Your task to perform on an android device: turn on airplane mode Image 0: 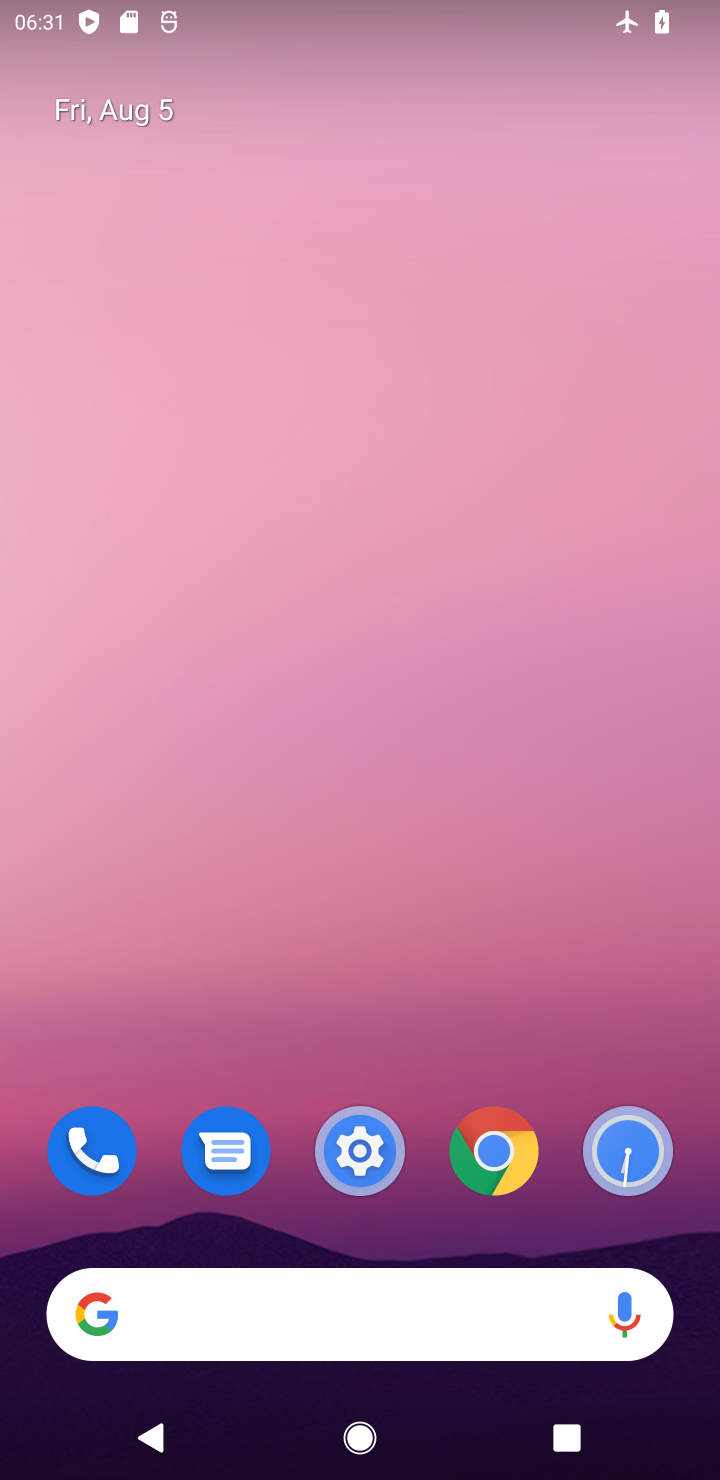
Step 0: drag from (448, 1219) to (459, 119)
Your task to perform on an android device: turn on airplane mode Image 1: 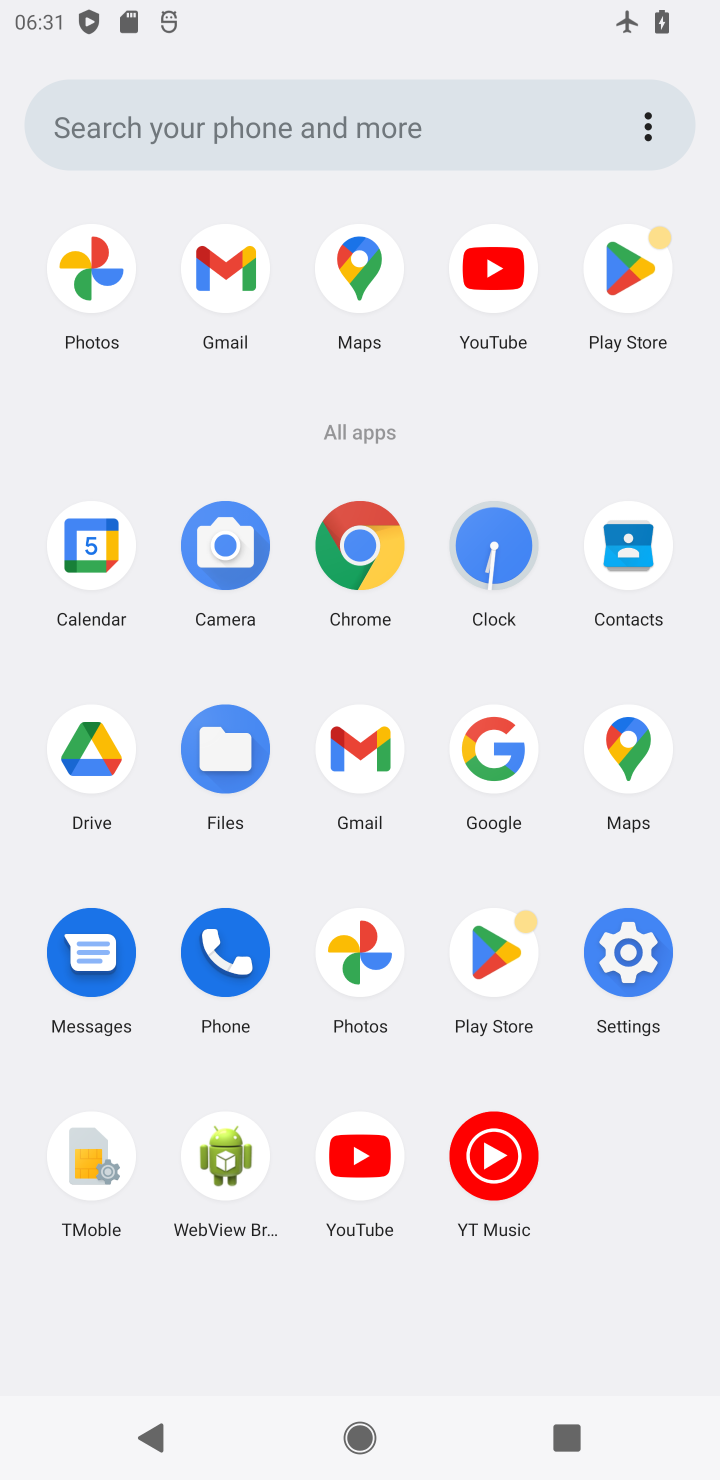
Step 1: click (629, 987)
Your task to perform on an android device: turn on airplane mode Image 2: 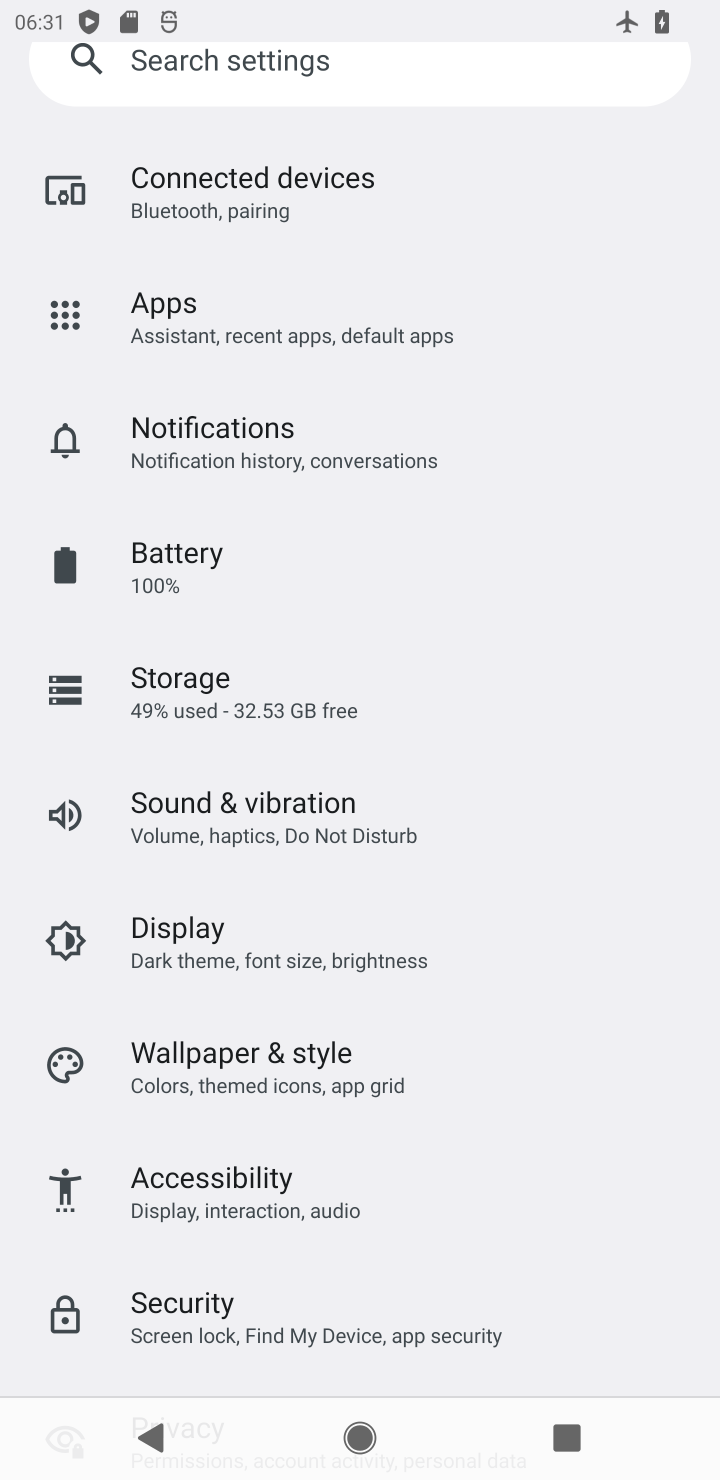
Step 2: drag from (281, 388) to (345, 977)
Your task to perform on an android device: turn on airplane mode Image 3: 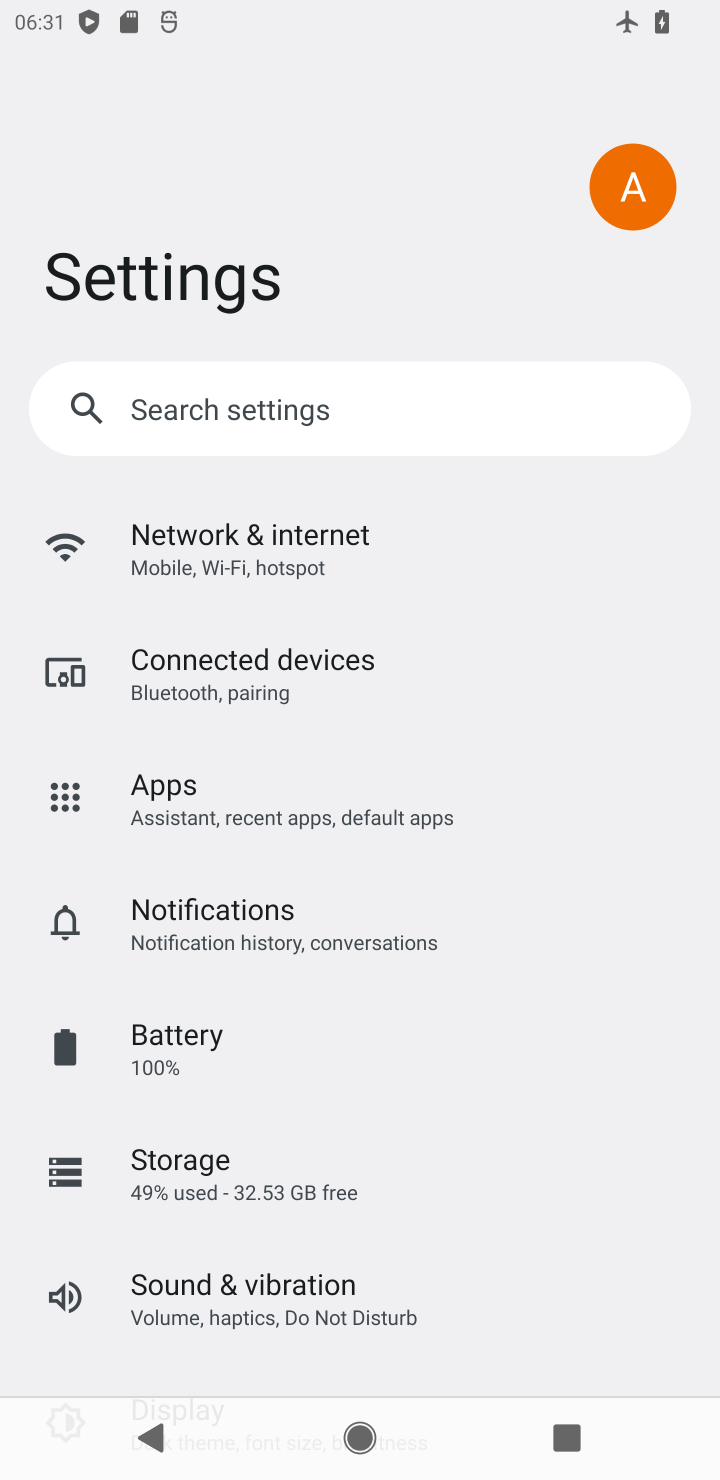
Step 3: click (397, 520)
Your task to perform on an android device: turn on airplane mode Image 4: 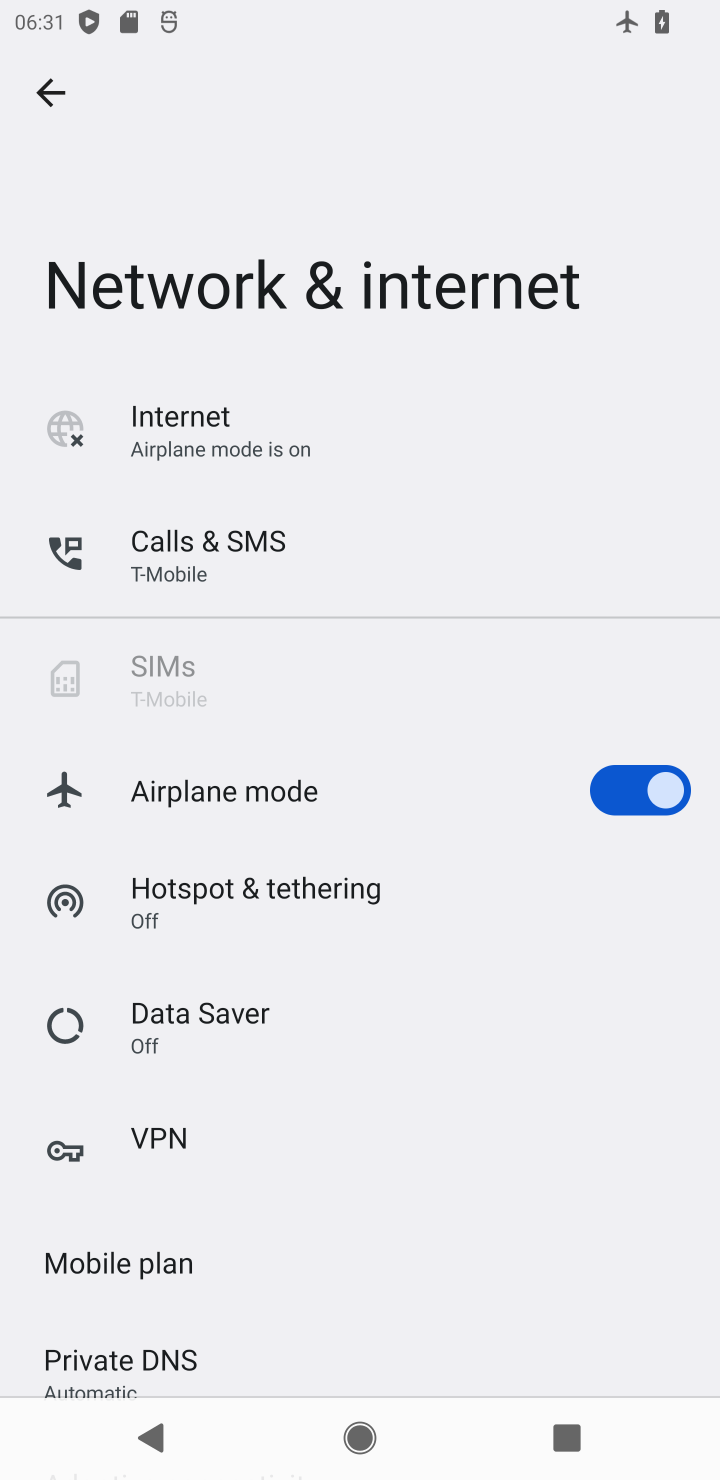
Step 4: task complete